Your task to perform on an android device: turn vacation reply on in the gmail app Image 0: 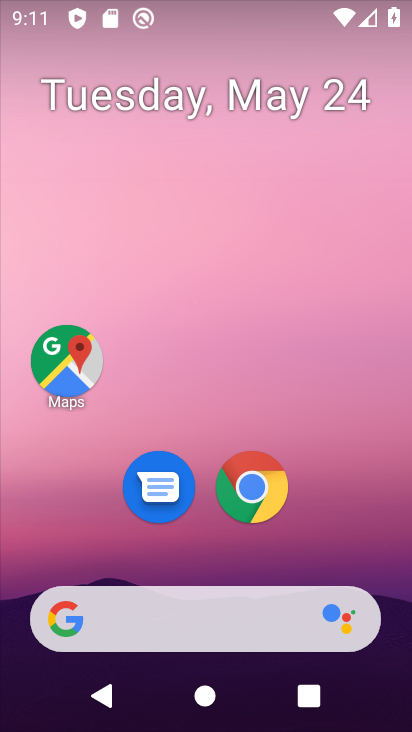
Step 0: drag from (363, 585) to (363, 22)
Your task to perform on an android device: turn vacation reply on in the gmail app Image 1: 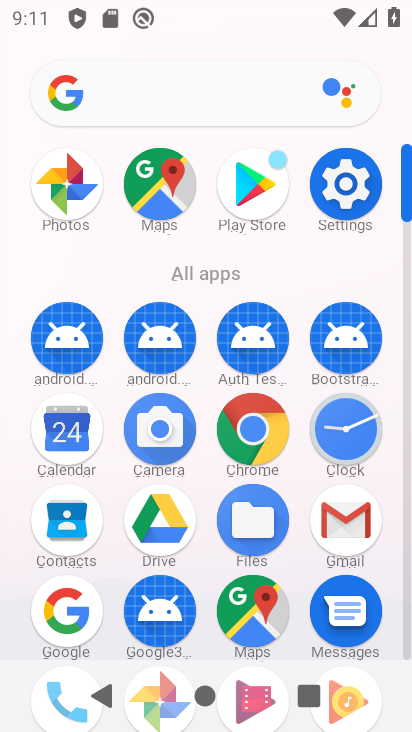
Step 1: click (349, 533)
Your task to perform on an android device: turn vacation reply on in the gmail app Image 2: 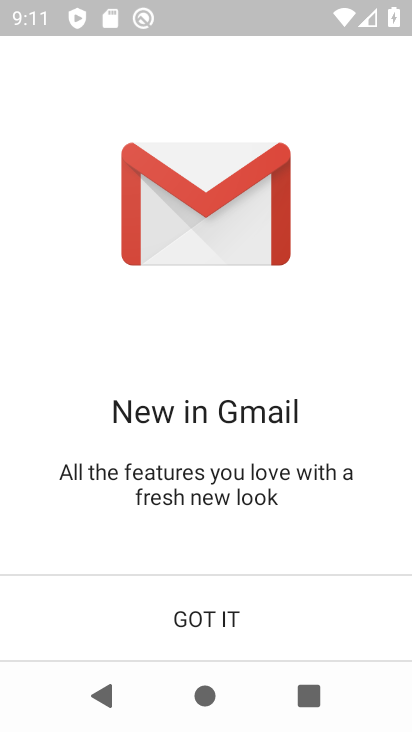
Step 2: click (223, 616)
Your task to perform on an android device: turn vacation reply on in the gmail app Image 3: 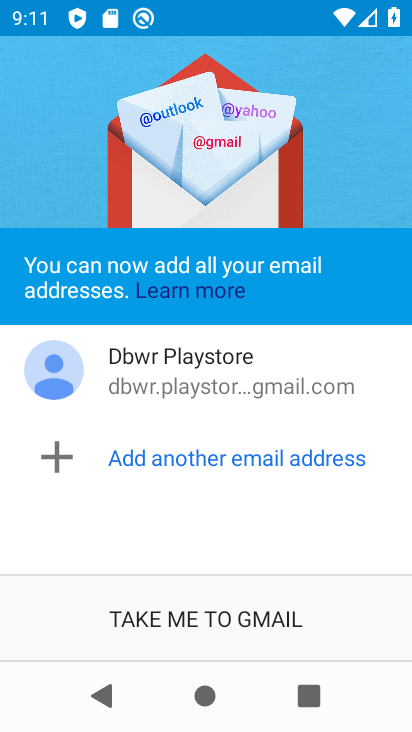
Step 3: click (223, 616)
Your task to perform on an android device: turn vacation reply on in the gmail app Image 4: 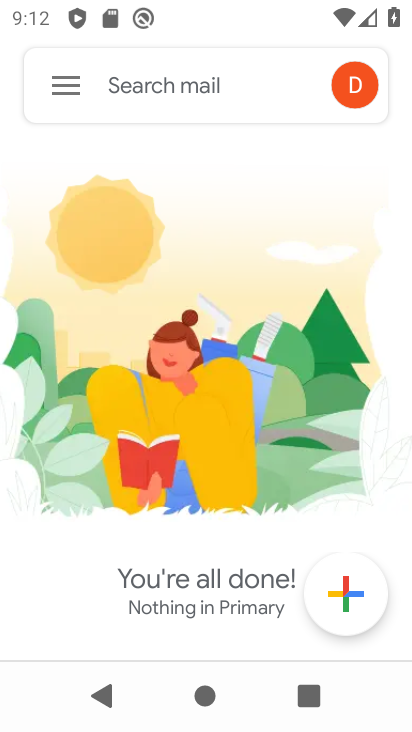
Step 4: click (69, 88)
Your task to perform on an android device: turn vacation reply on in the gmail app Image 5: 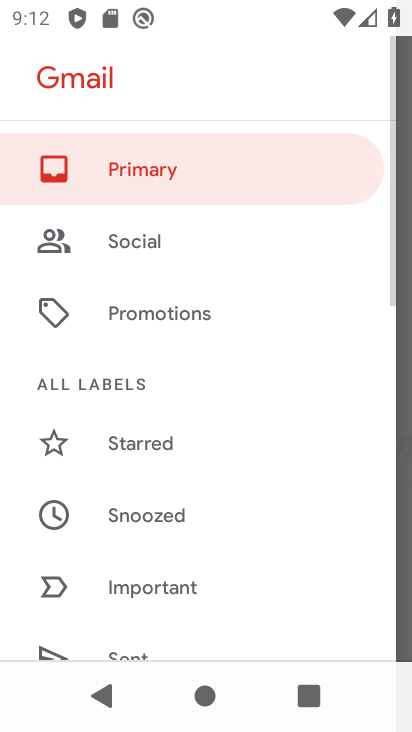
Step 5: drag from (232, 538) to (209, 192)
Your task to perform on an android device: turn vacation reply on in the gmail app Image 6: 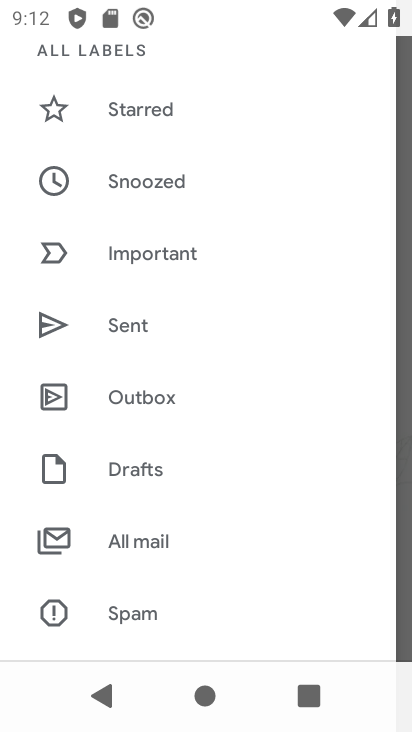
Step 6: drag from (196, 558) to (170, 123)
Your task to perform on an android device: turn vacation reply on in the gmail app Image 7: 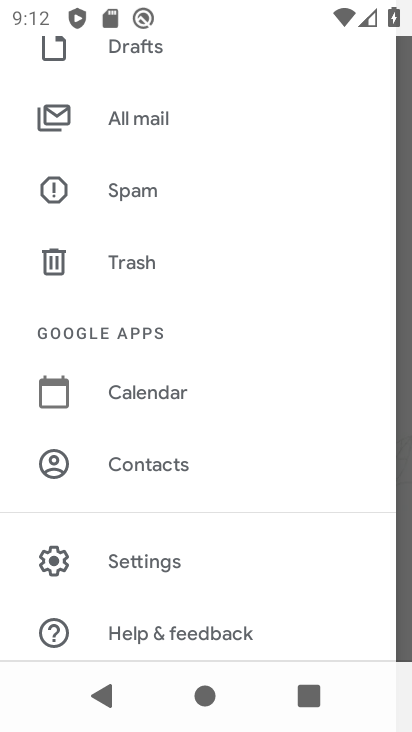
Step 7: click (160, 559)
Your task to perform on an android device: turn vacation reply on in the gmail app Image 8: 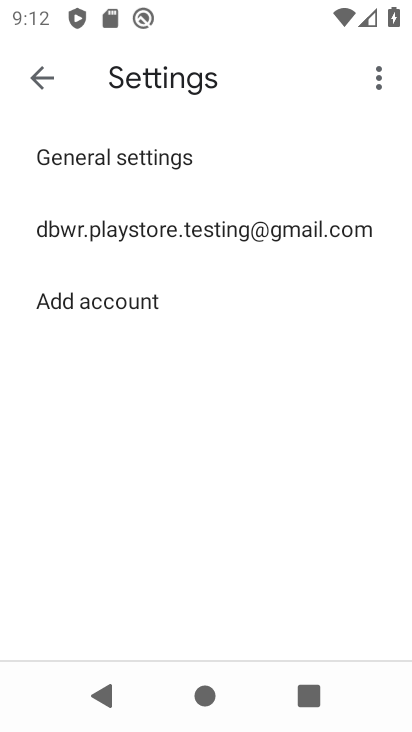
Step 8: click (107, 240)
Your task to perform on an android device: turn vacation reply on in the gmail app Image 9: 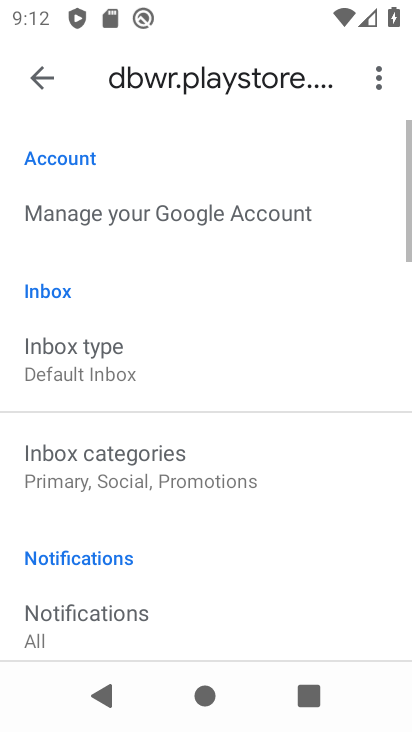
Step 9: drag from (163, 533) to (117, 125)
Your task to perform on an android device: turn vacation reply on in the gmail app Image 10: 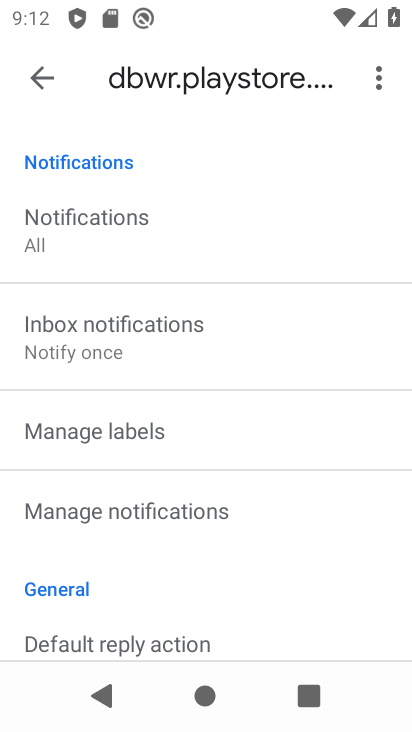
Step 10: drag from (185, 489) to (133, 139)
Your task to perform on an android device: turn vacation reply on in the gmail app Image 11: 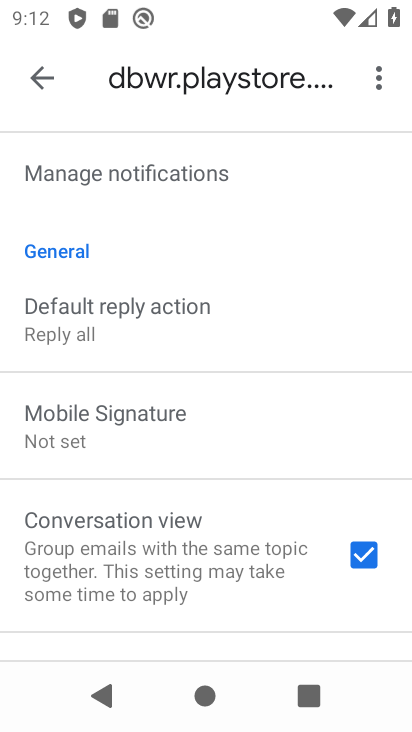
Step 11: drag from (214, 494) to (143, 178)
Your task to perform on an android device: turn vacation reply on in the gmail app Image 12: 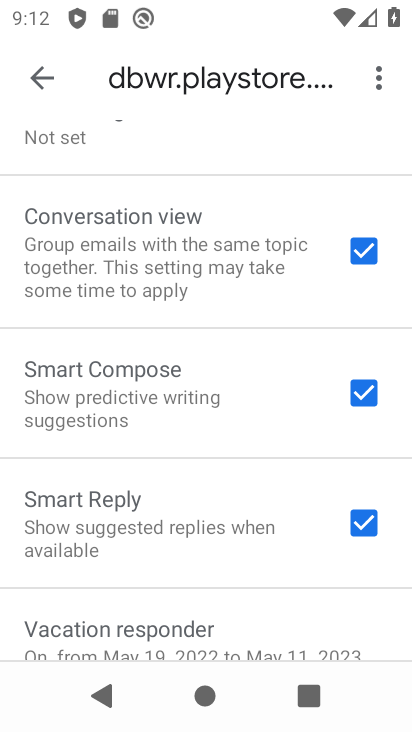
Step 12: drag from (153, 532) to (135, 343)
Your task to perform on an android device: turn vacation reply on in the gmail app Image 13: 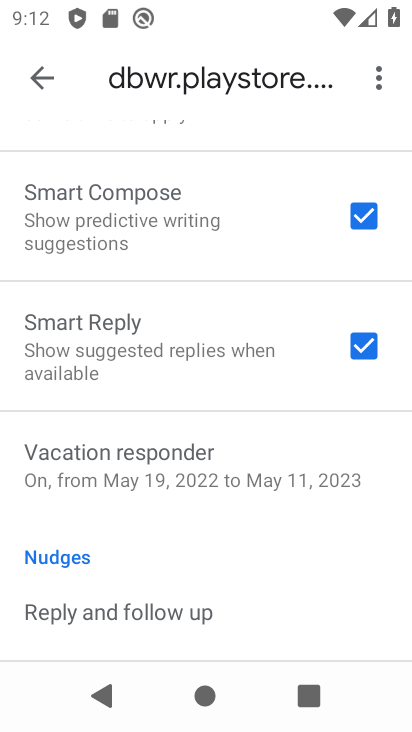
Step 13: click (111, 467)
Your task to perform on an android device: turn vacation reply on in the gmail app Image 14: 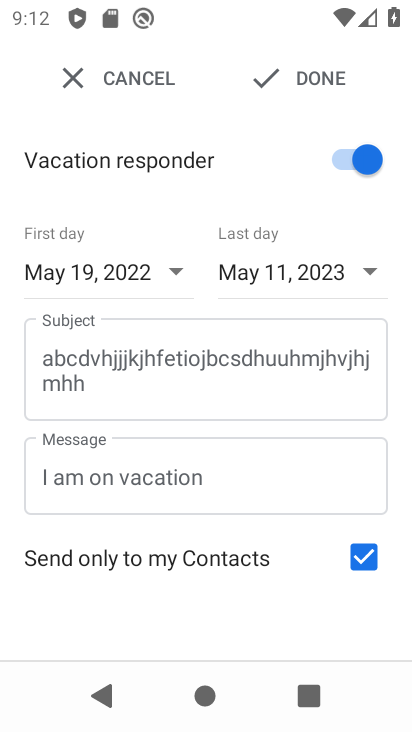
Step 14: click (296, 76)
Your task to perform on an android device: turn vacation reply on in the gmail app Image 15: 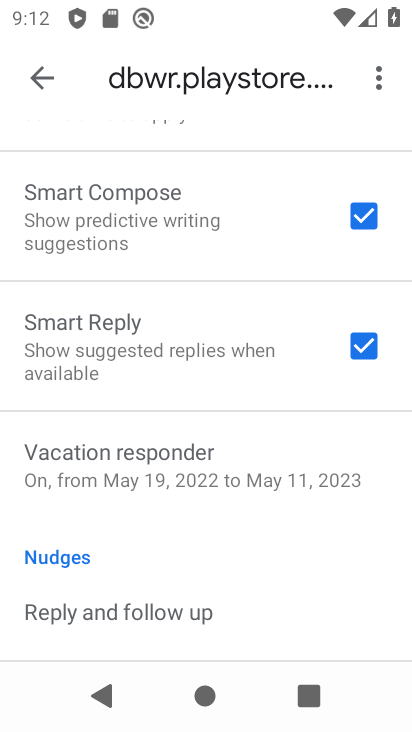
Step 15: task complete